Your task to perform on an android device: uninstall "Upside-Cash back on gas & food" Image 0: 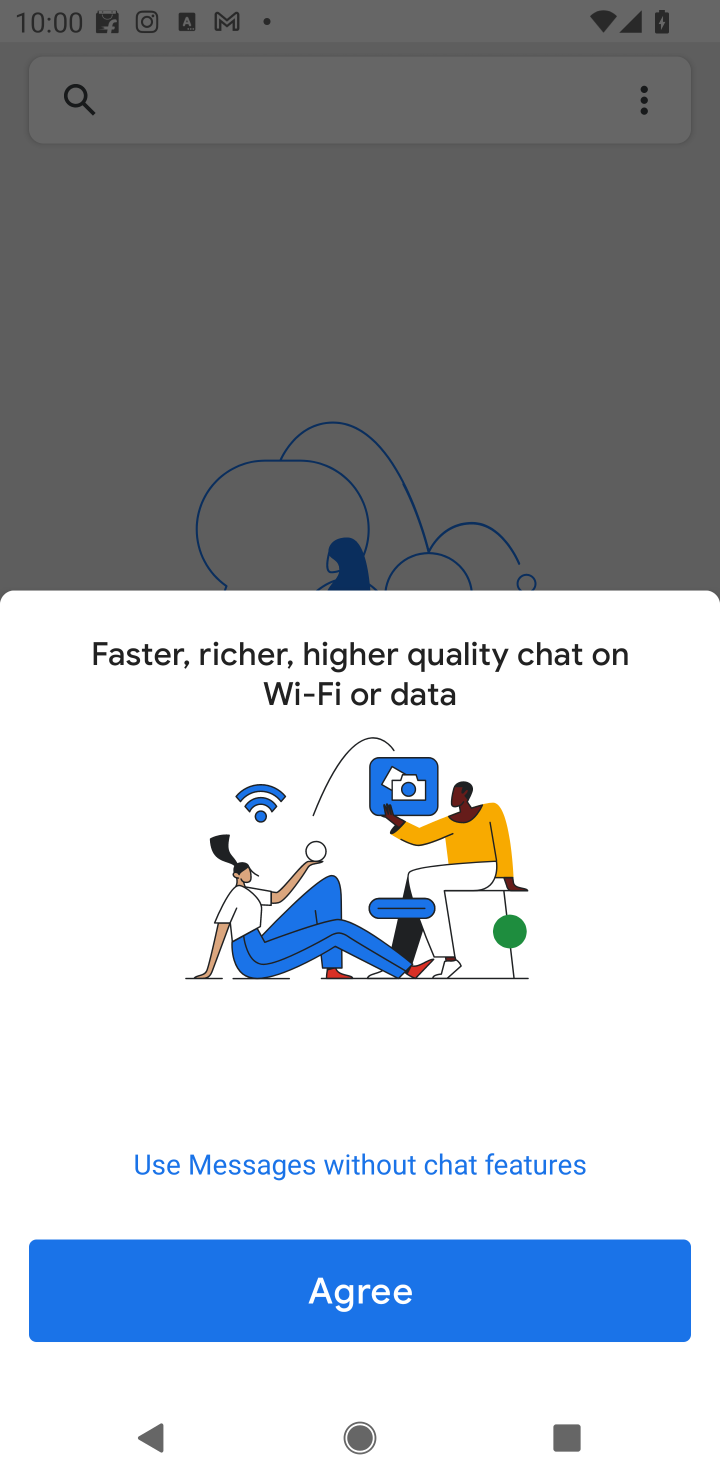
Step 0: press home button
Your task to perform on an android device: uninstall "Upside-Cash back on gas & food" Image 1: 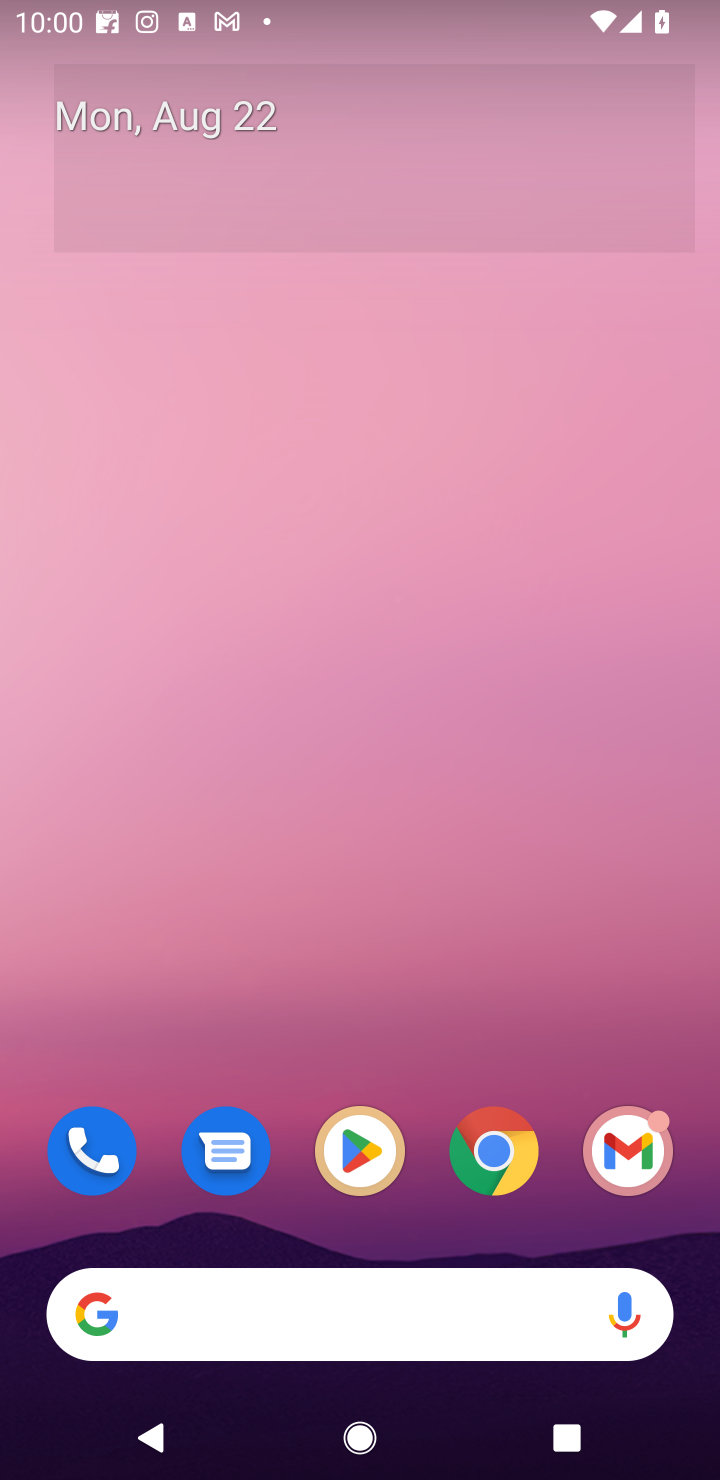
Step 1: click (356, 1150)
Your task to perform on an android device: uninstall "Upside-Cash back on gas & food" Image 2: 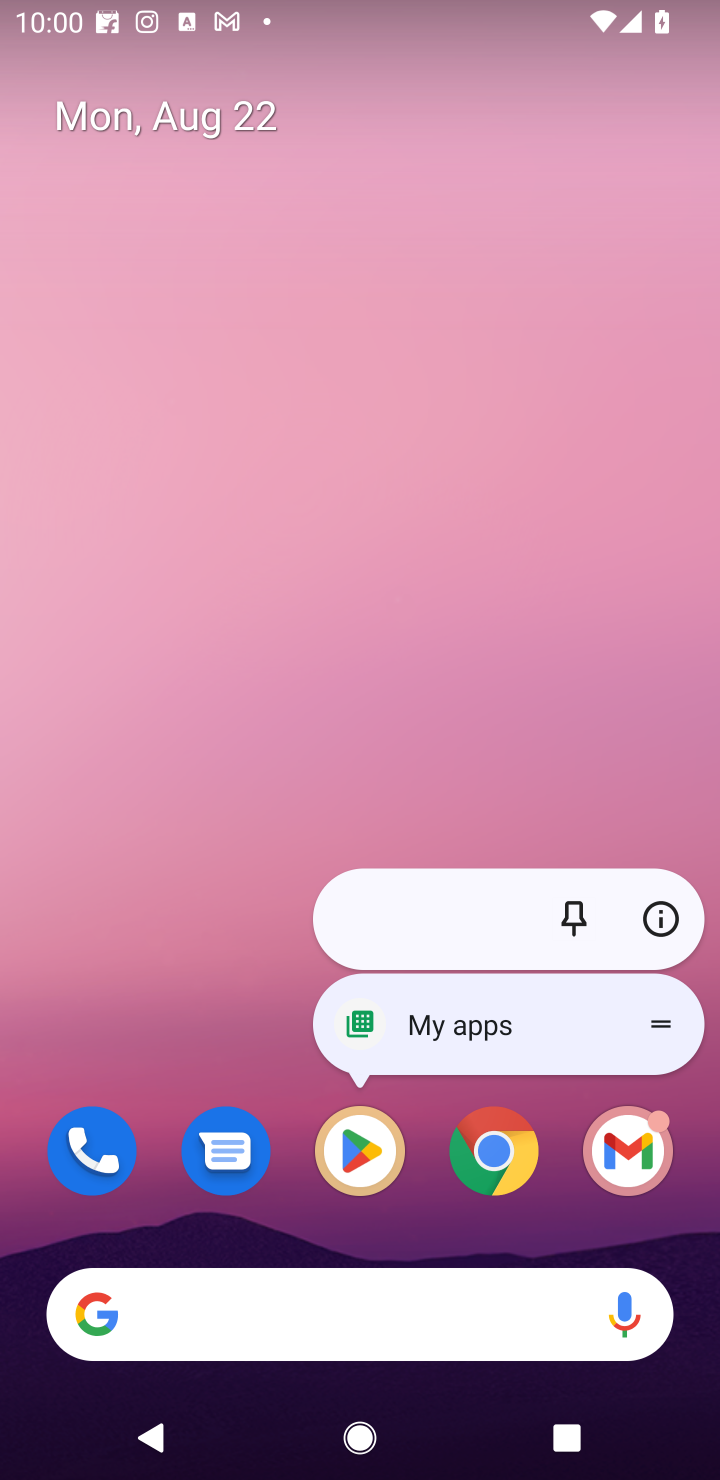
Step 2: click (356, 1161)
Your task to perform on an android device: uninstall "Upside-Cash back on gas & food" Image 3: 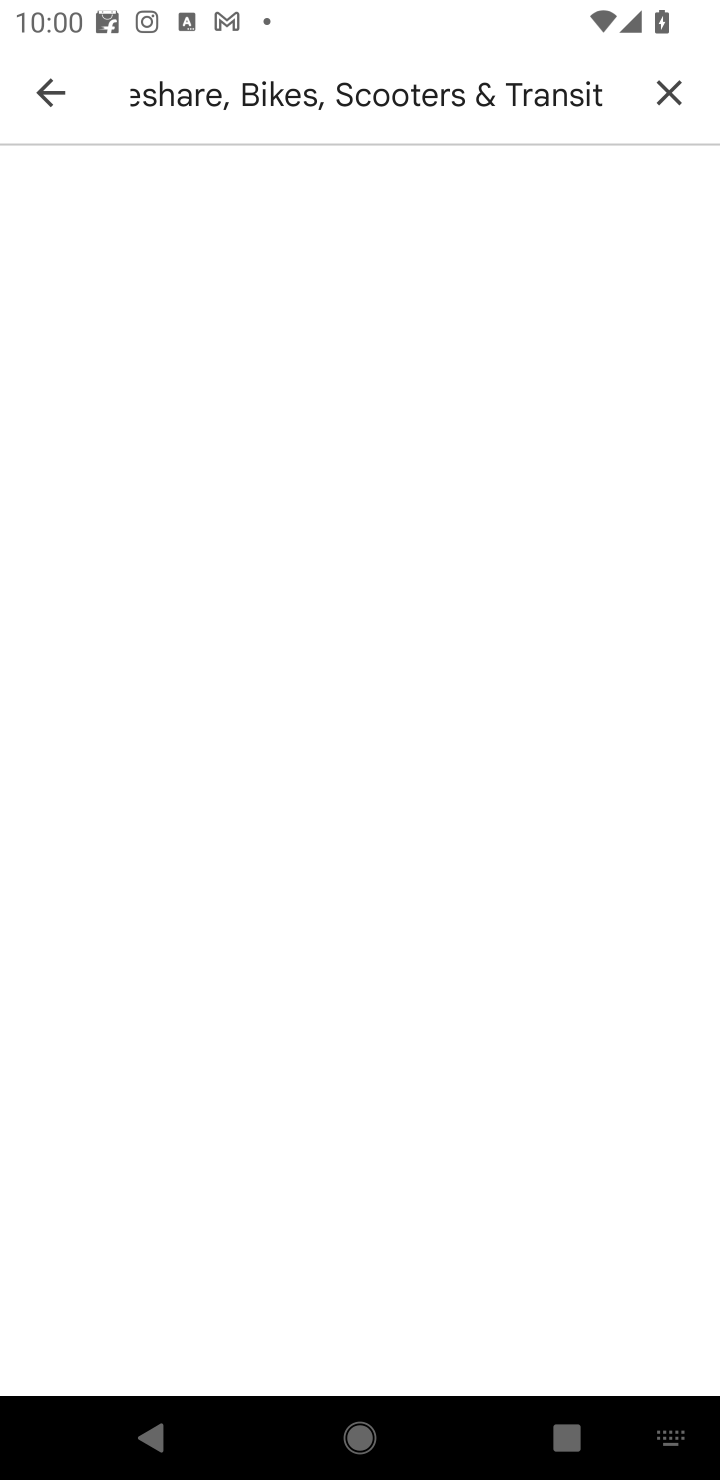
Step 3: click (671, 98)
Your task to perform on an android device: uninstall "Upside-Cash back on gas & food" Image 4: 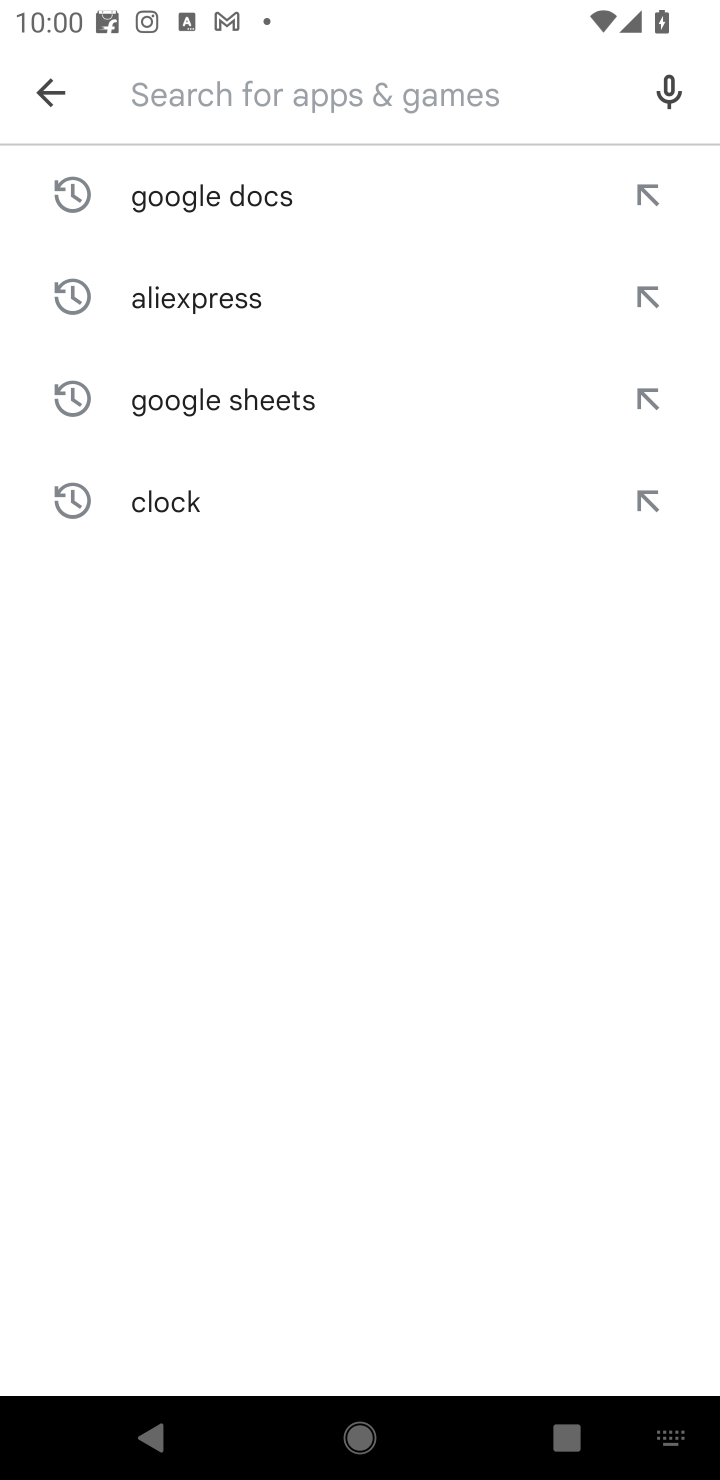
Step 4: type "Upside-Cash back on gas & food"
Your task to perform on an android device: uninstall "Upside-Cash back on gas & food" Image 5: 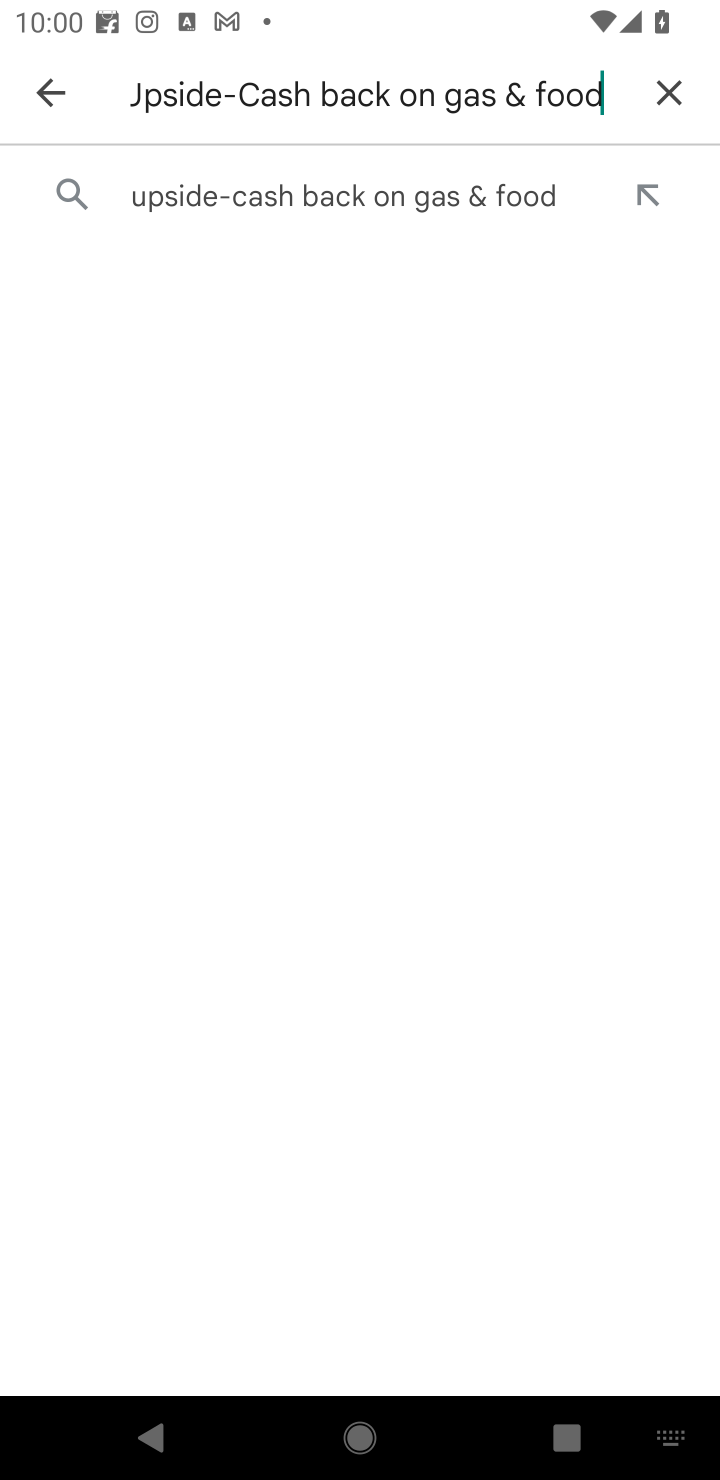
Step 5: click (300, 199)
Your task to perform on an android device: uninstall "Upside-Cash back on gas & food" Image 6: 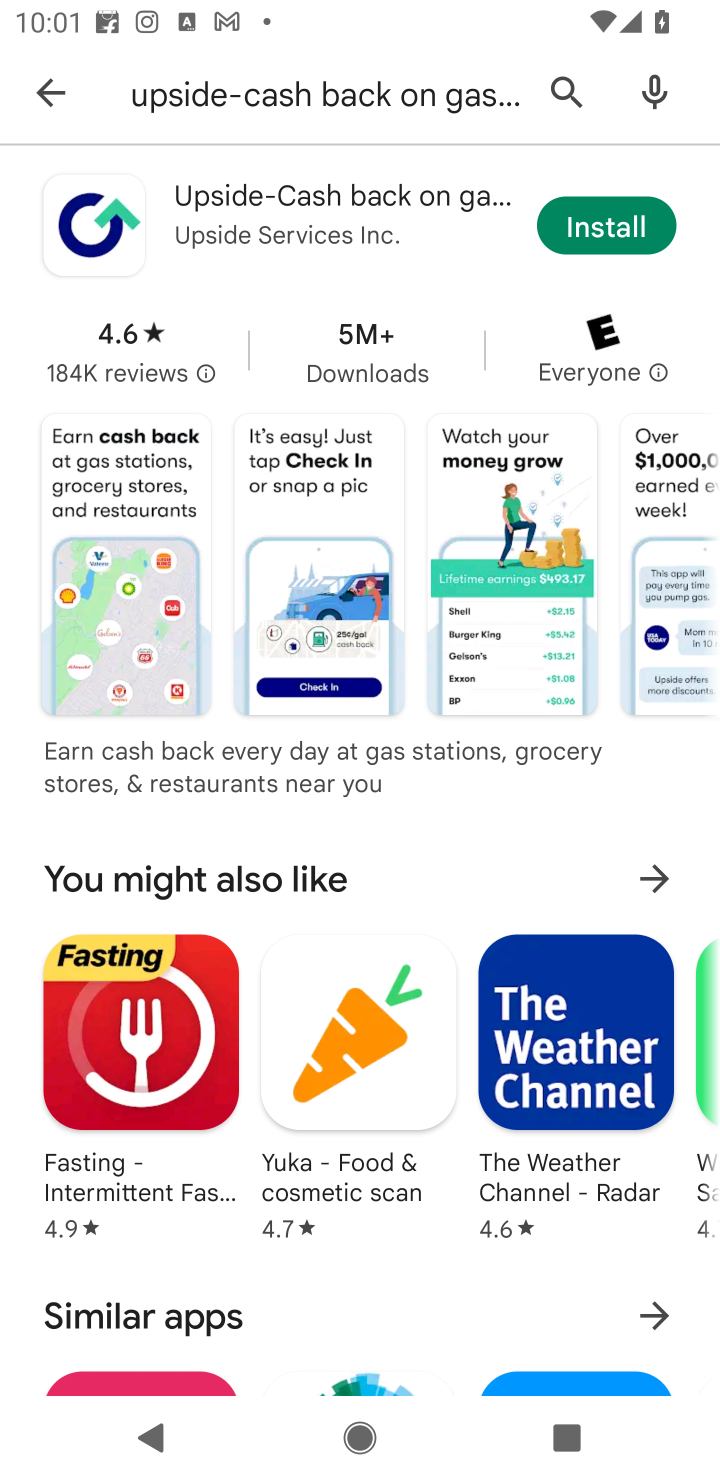
Step 6: task complete